Your task to perform on an android device: clear all cookies in the chrome app Image 0: 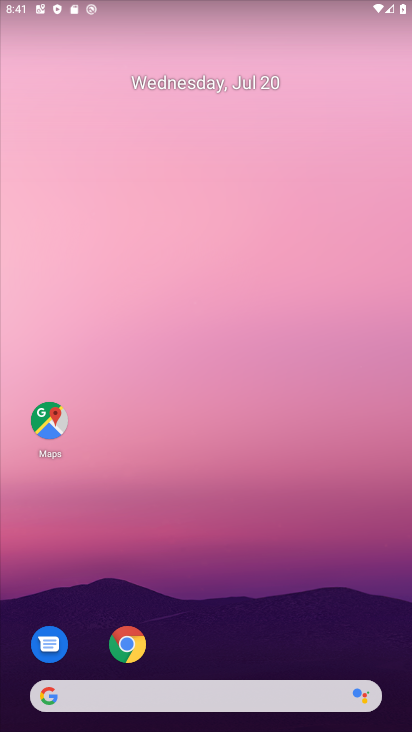
Step 0: click (141, 652)
Your task to perform on an android device: clear all cookies in the chrome app Image 1: 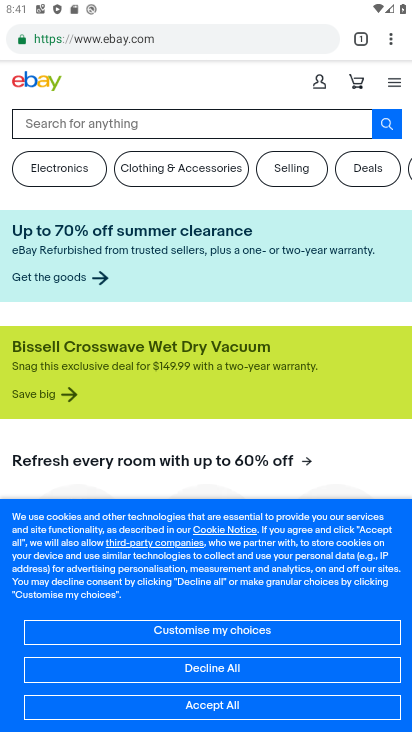
Step 1: click (386, 40)
Your task to perform on an android device: clear all cookies in the chrome app Image 2: 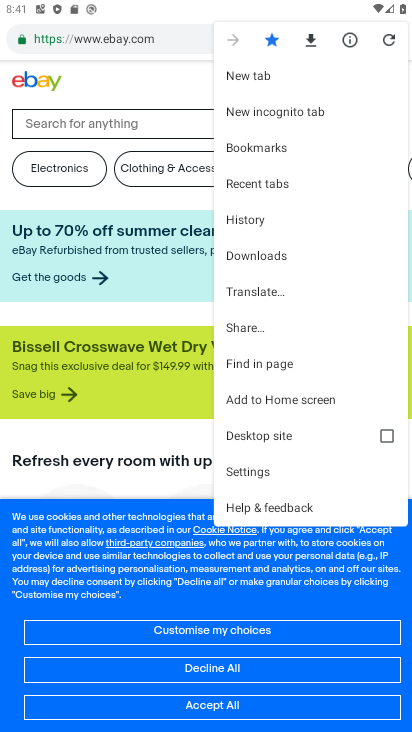
Step 2: click (276, 480)
Your task to perform on an android device: clear all cookies in the chrome app Image 3: 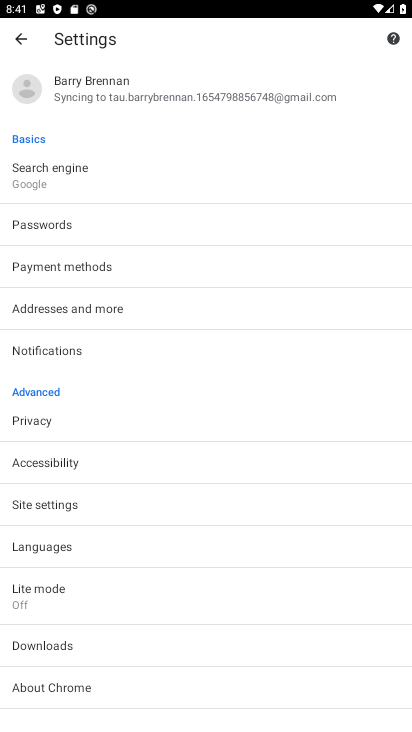
Step 3: click (125, 415)
Your task to perform on an android device: clear all cookies in the chrome app Image 4: 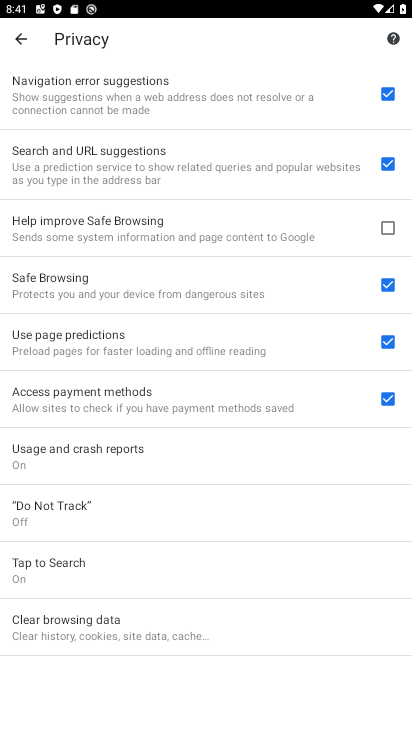
Step 4: click (111, 621)
Your task to perform on an android device: clear all cookies in the chrome app Image 5: 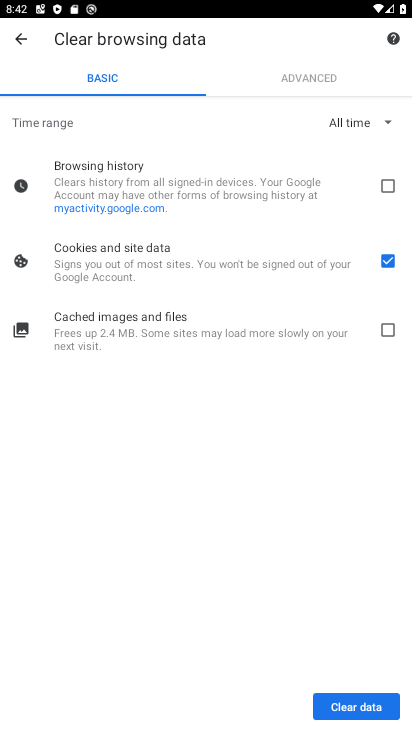
Step 5: click (377, 706)
Your task to perform on an android device: clear all cookies in the chrome app Image 6: 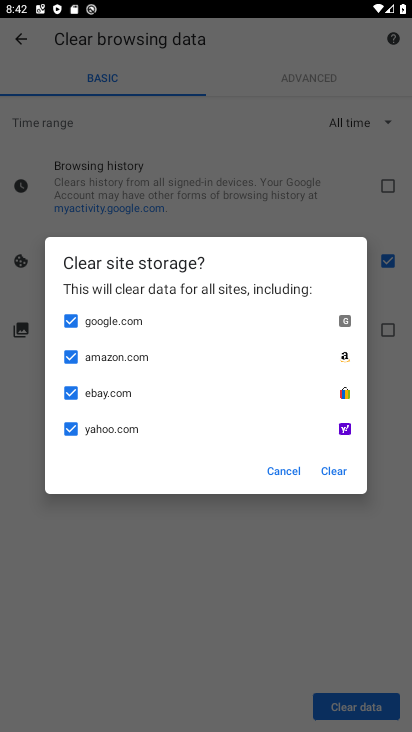
Step 6: click (334, 469)
Your task to perform on an android device: clear all cookies in the chrome app Image 7: 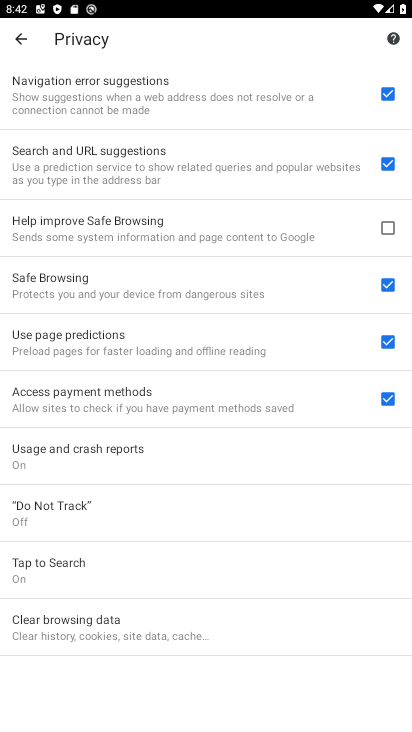
Step 7: task complete